Your task to perform on an android device: snooze an email in the gmail app Image 0: 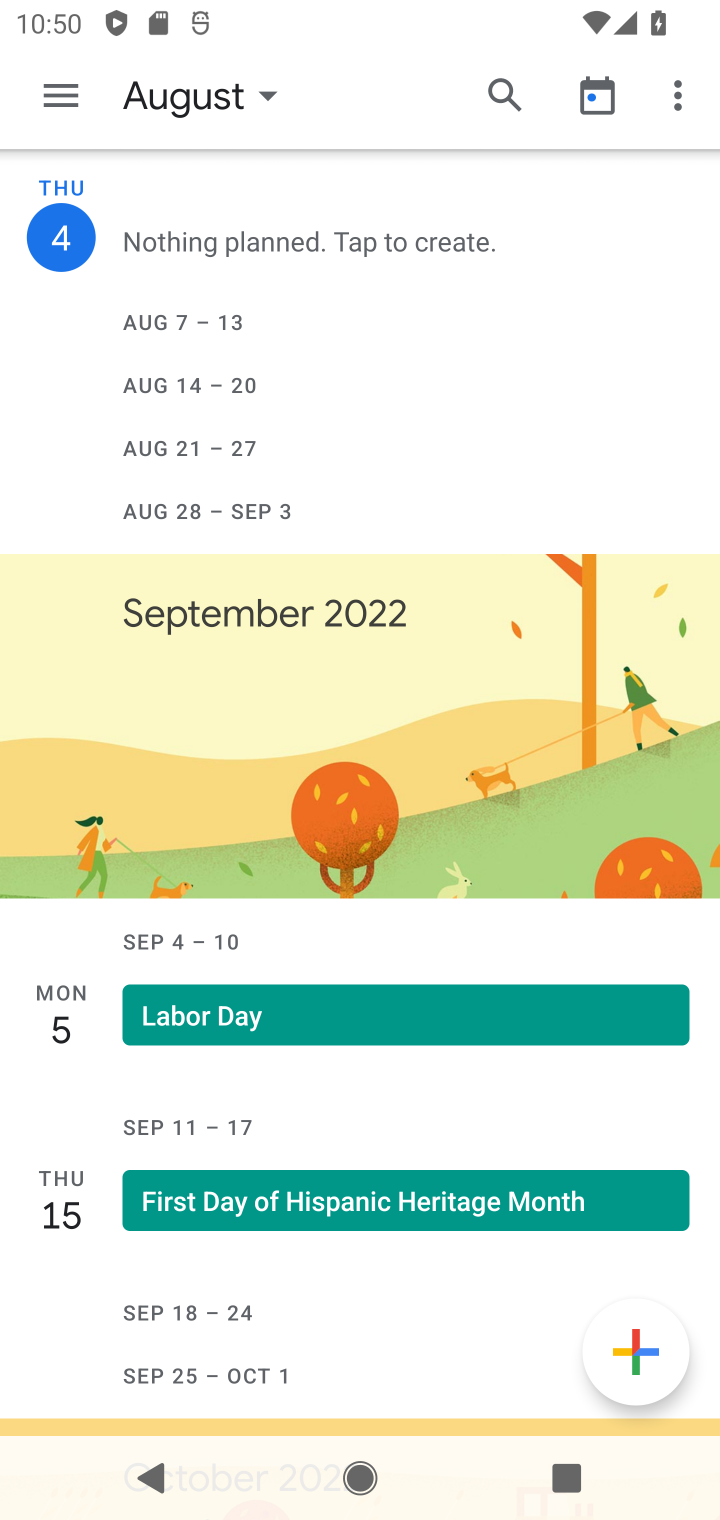
Step 0: press home button
Your task to perform on an android device: snooze an email in the gmail app Image 1: 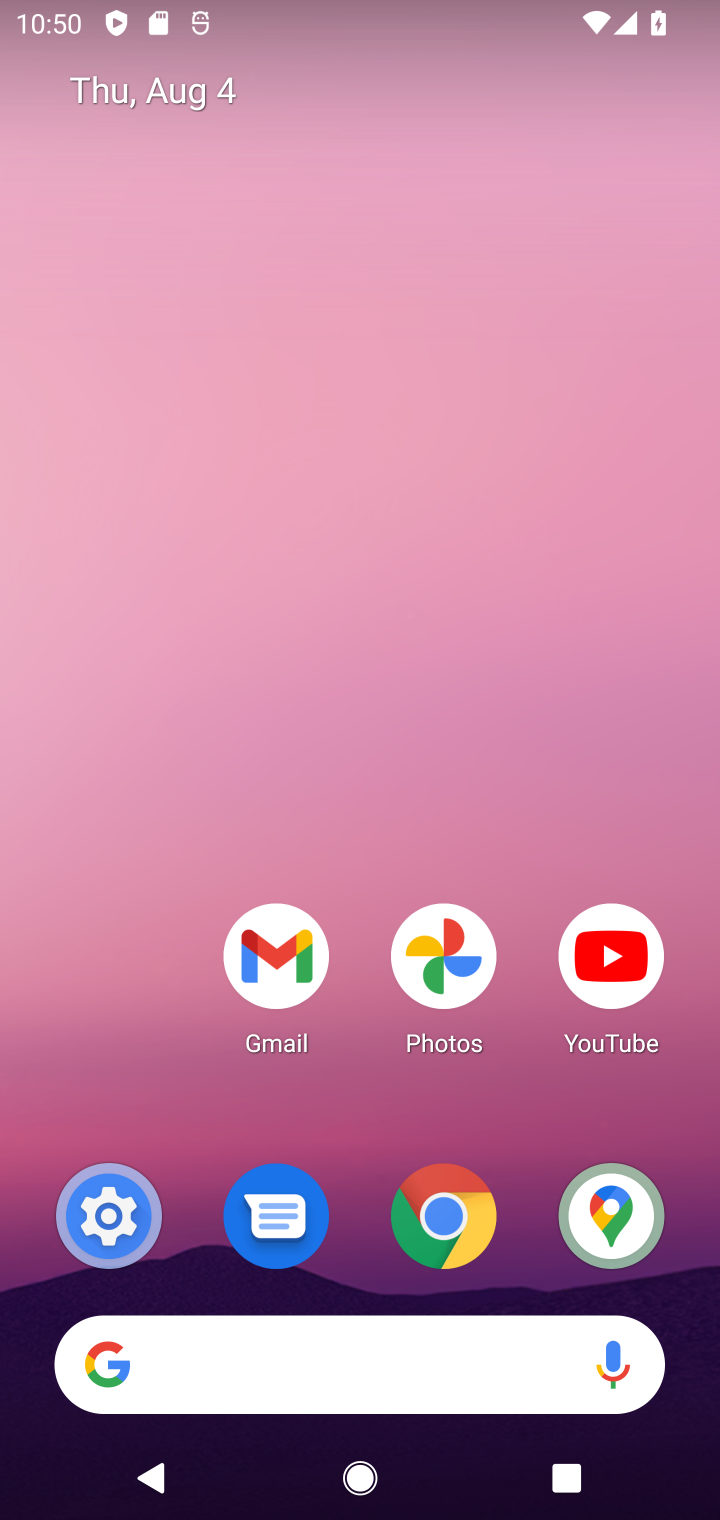
Step 1: drag from (363, 852) to (427, 9)
Your task to perform on an android device: snooze an email in the gmail app Image 2: 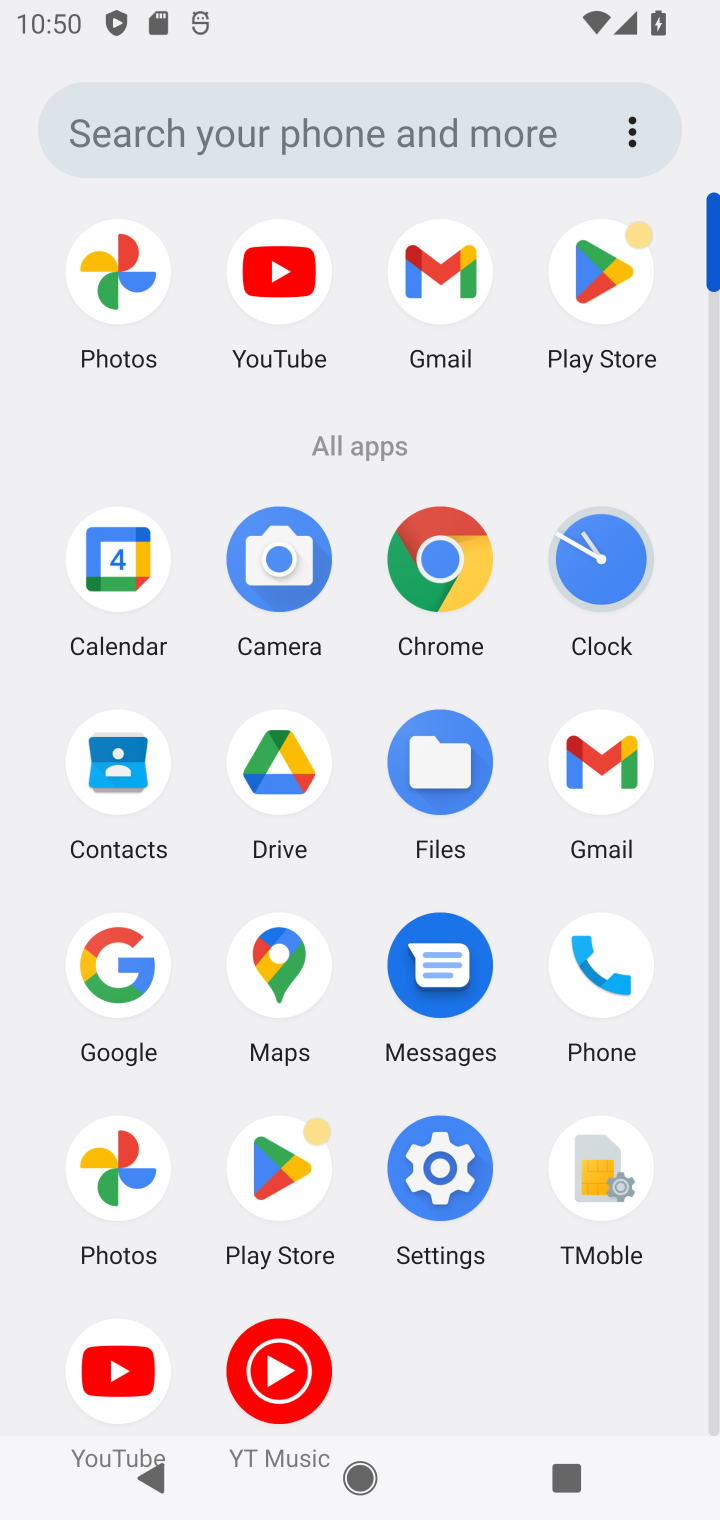
Step 2: click (596, 758)
Your task to perform on an android device: snooze an email in the gmail app Image 3: 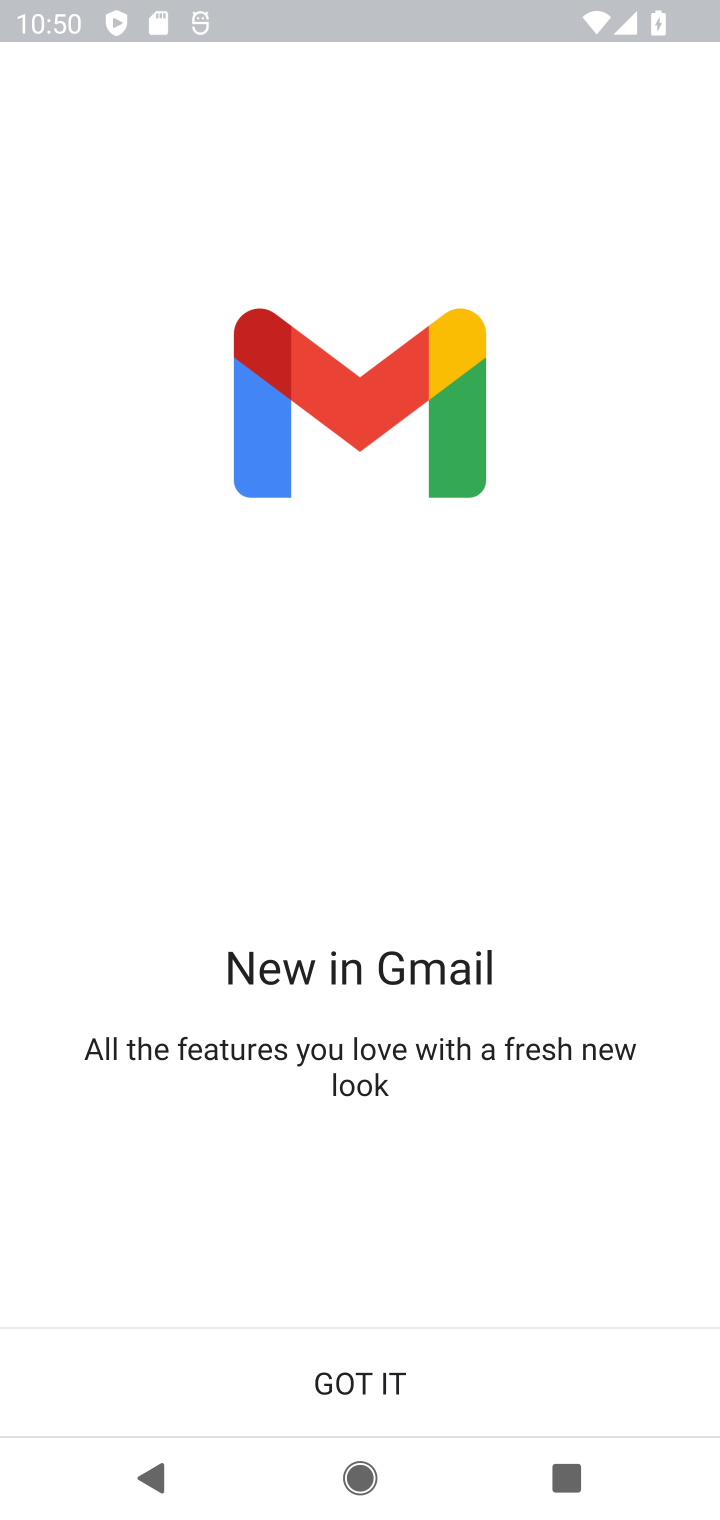
Step 3: click (390, 1365)
Your task to perform on an android device: snooze an email in the gmail app Image 4: 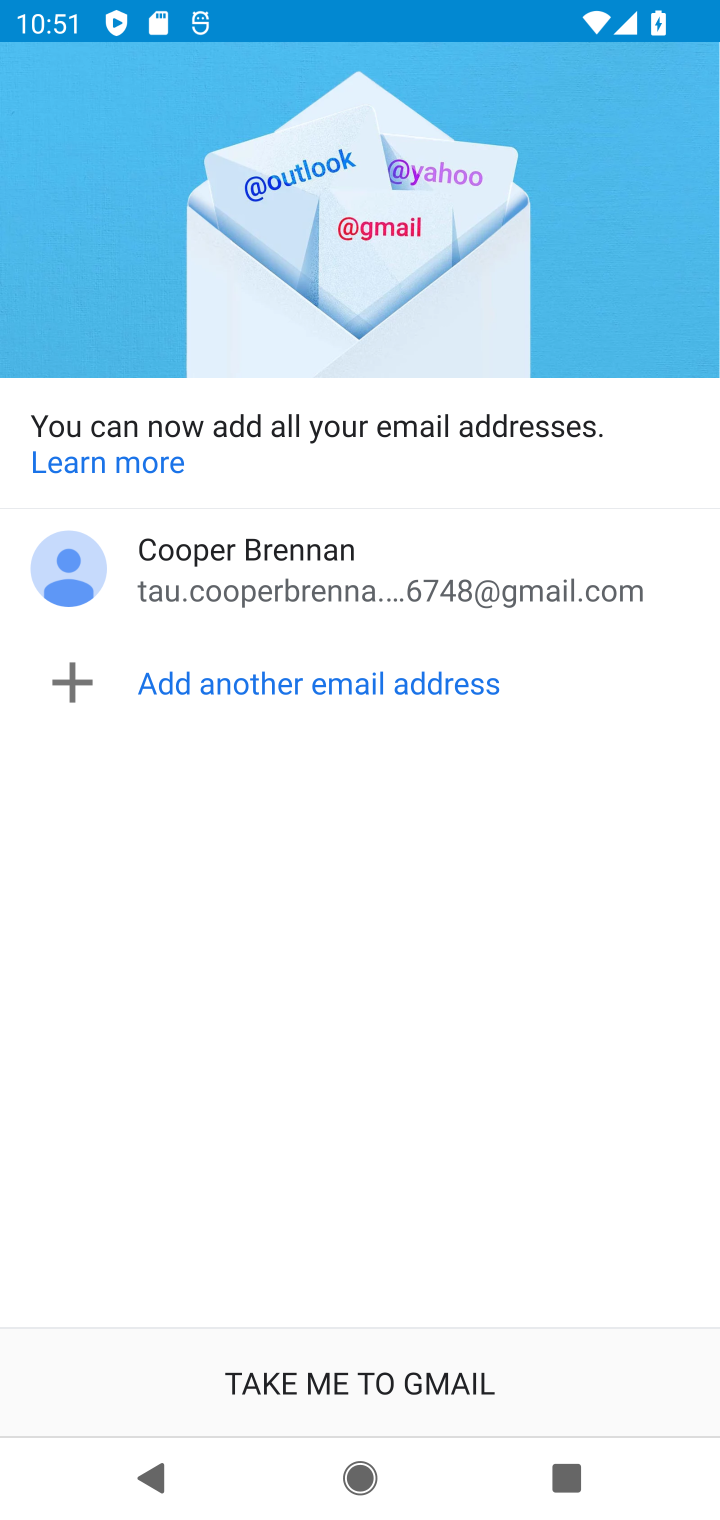
Step 4: click (441, 1377)
Your task to perform on an android device: snooze an email in the gmail app Image 5: 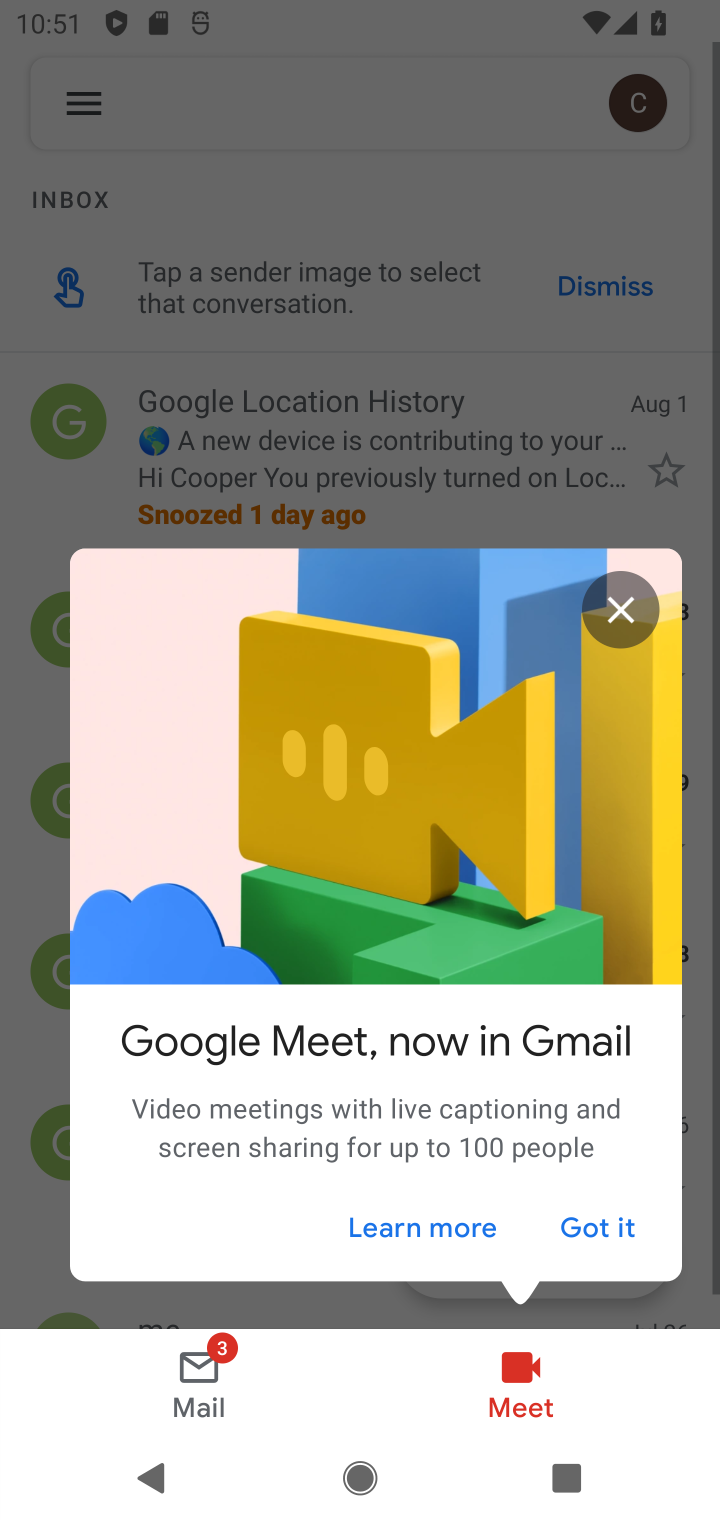
Step 5: click (631, 599)
Your task to perform on an android device: snooze an email in the gmail app Image 6: 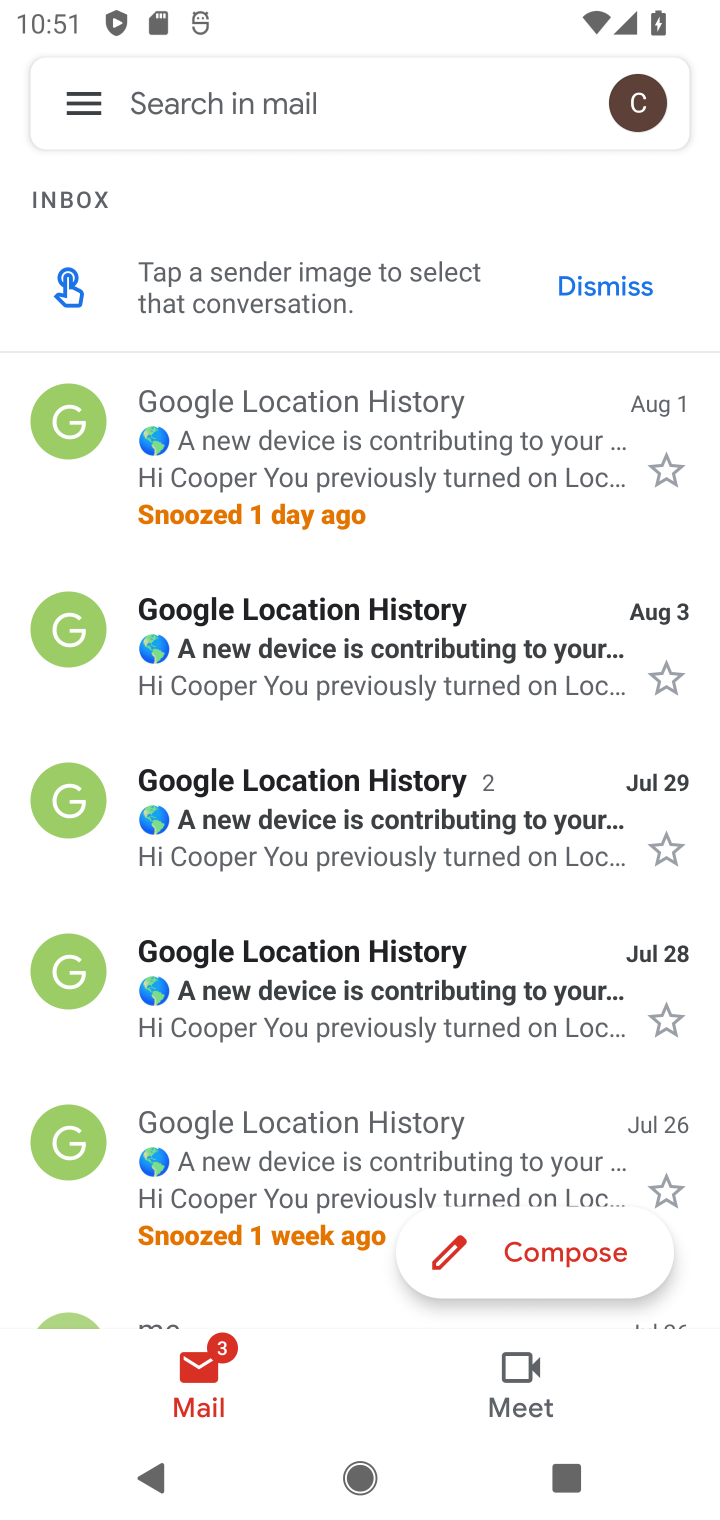
Step 6: click (487, 628)
Your task to perform on an android device: snooze an email in the gmail app Image 7: 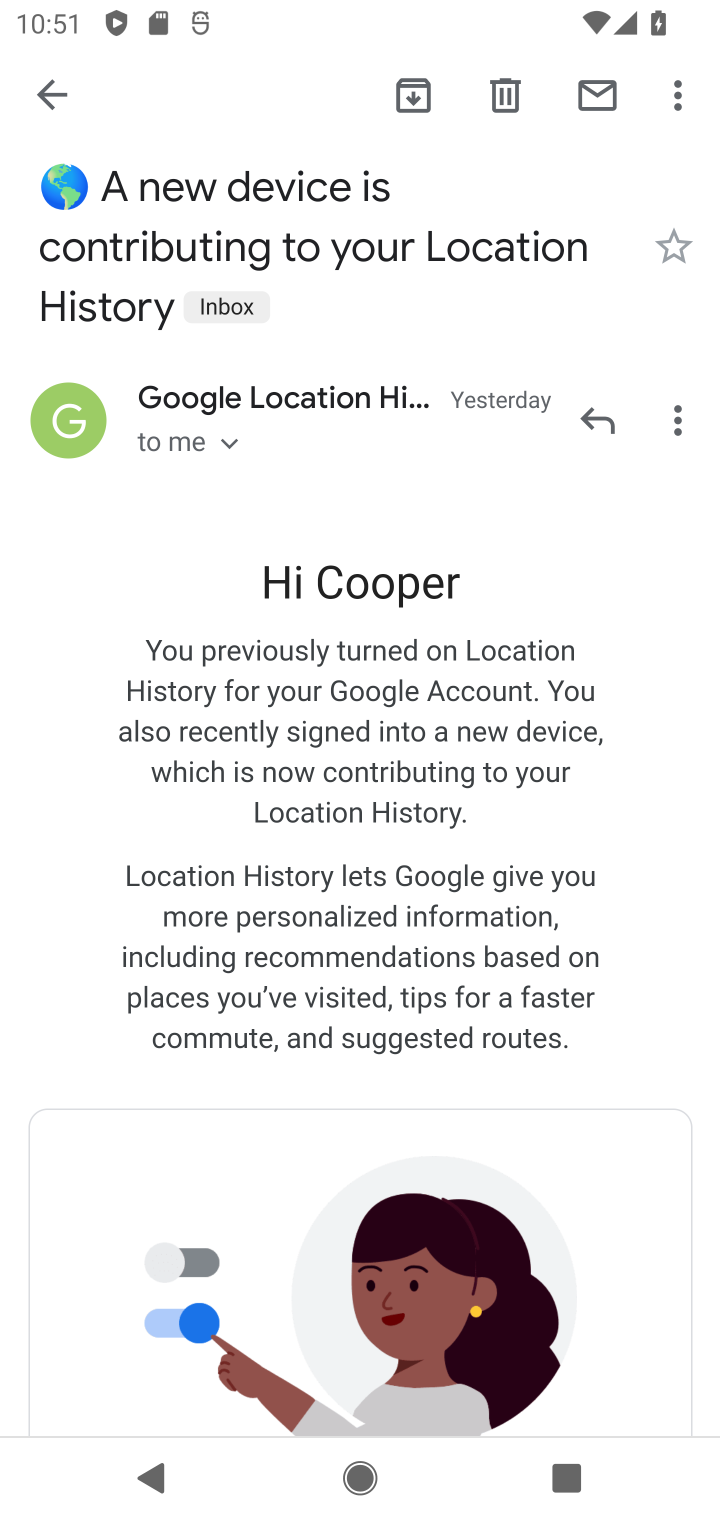
Step 7: click (680, 101)
Your task to perform on an android device: snooze an email in the gmail app Image 8: 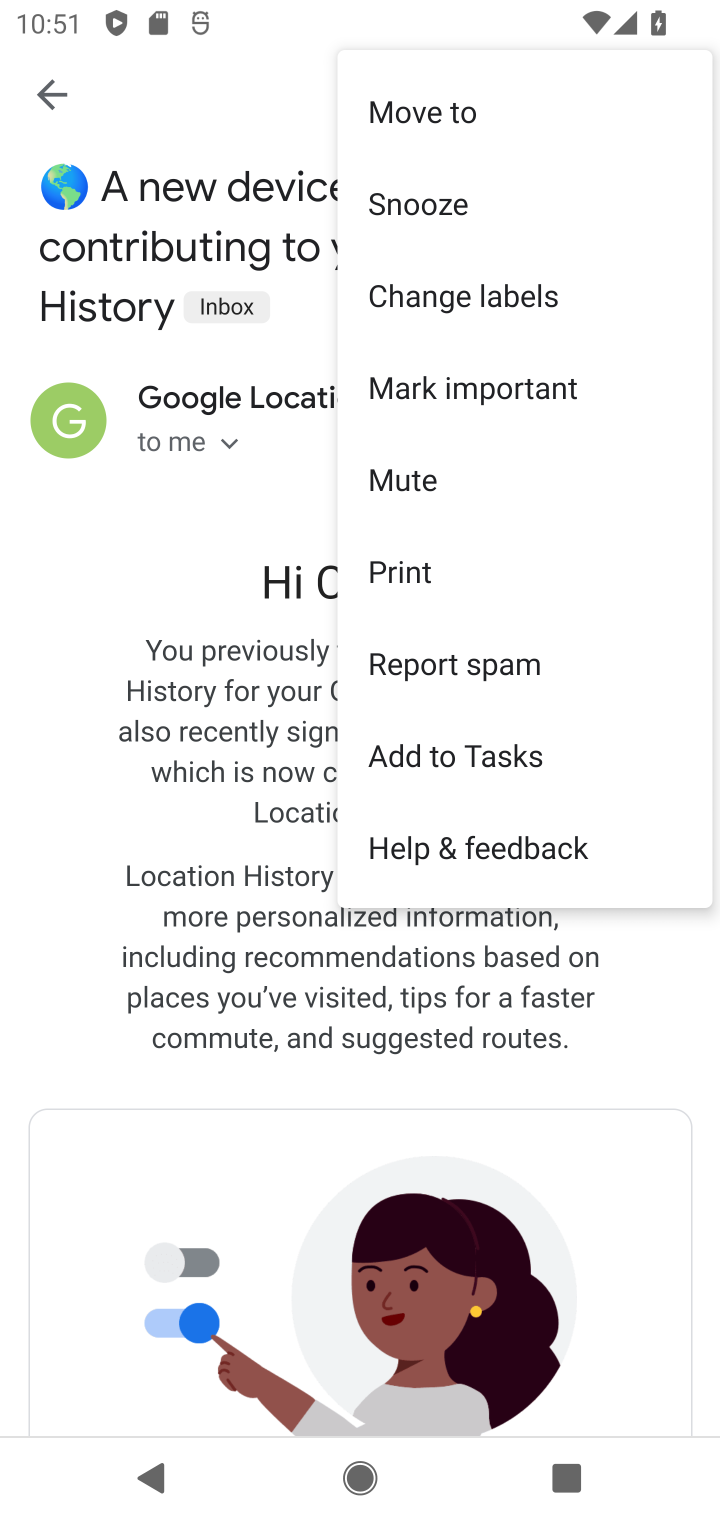
Step 8: click (491, 192)
Your task to perform on an android device: snooze an email in the gmail app Image 9: 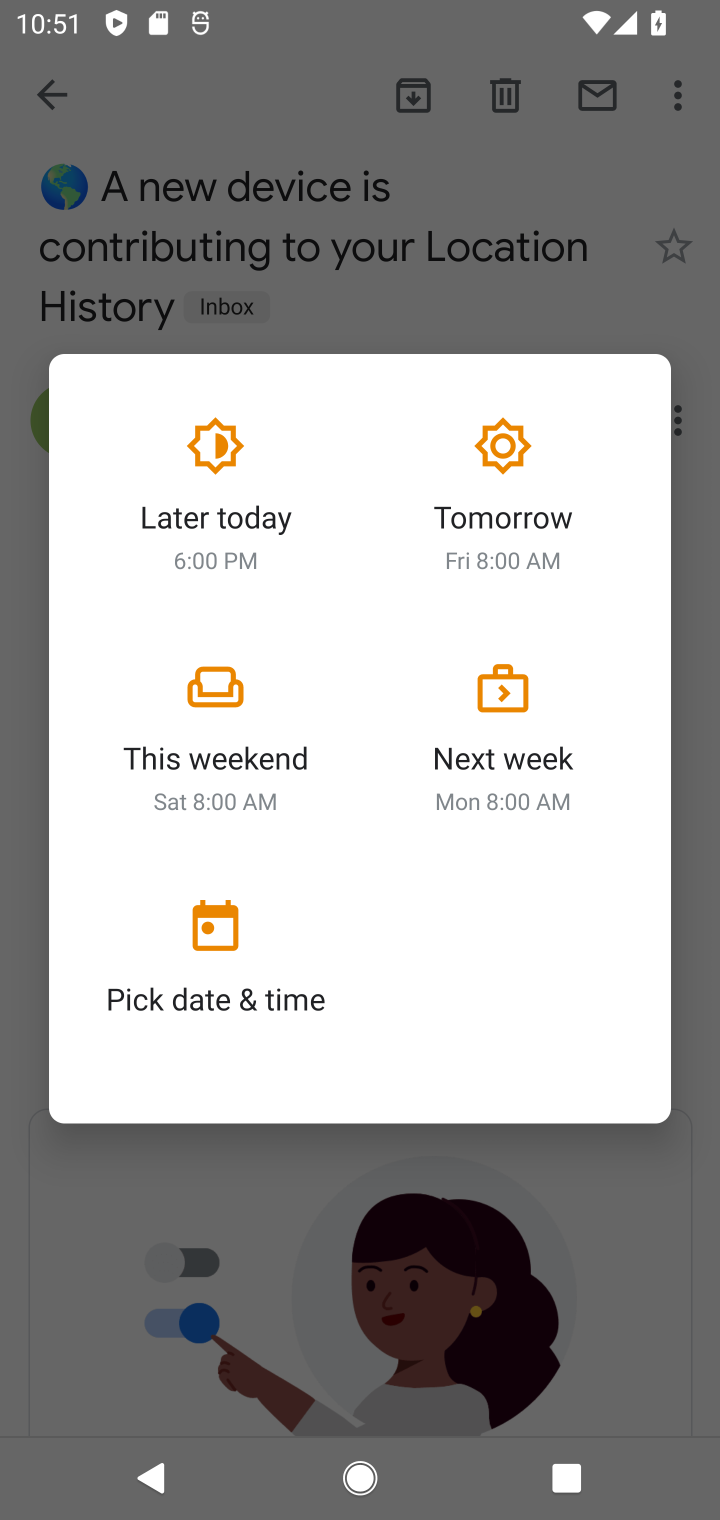
Step 9: click (468, 485)
Your task to perform on an android device: snooze an email in the gmail app Image 10: 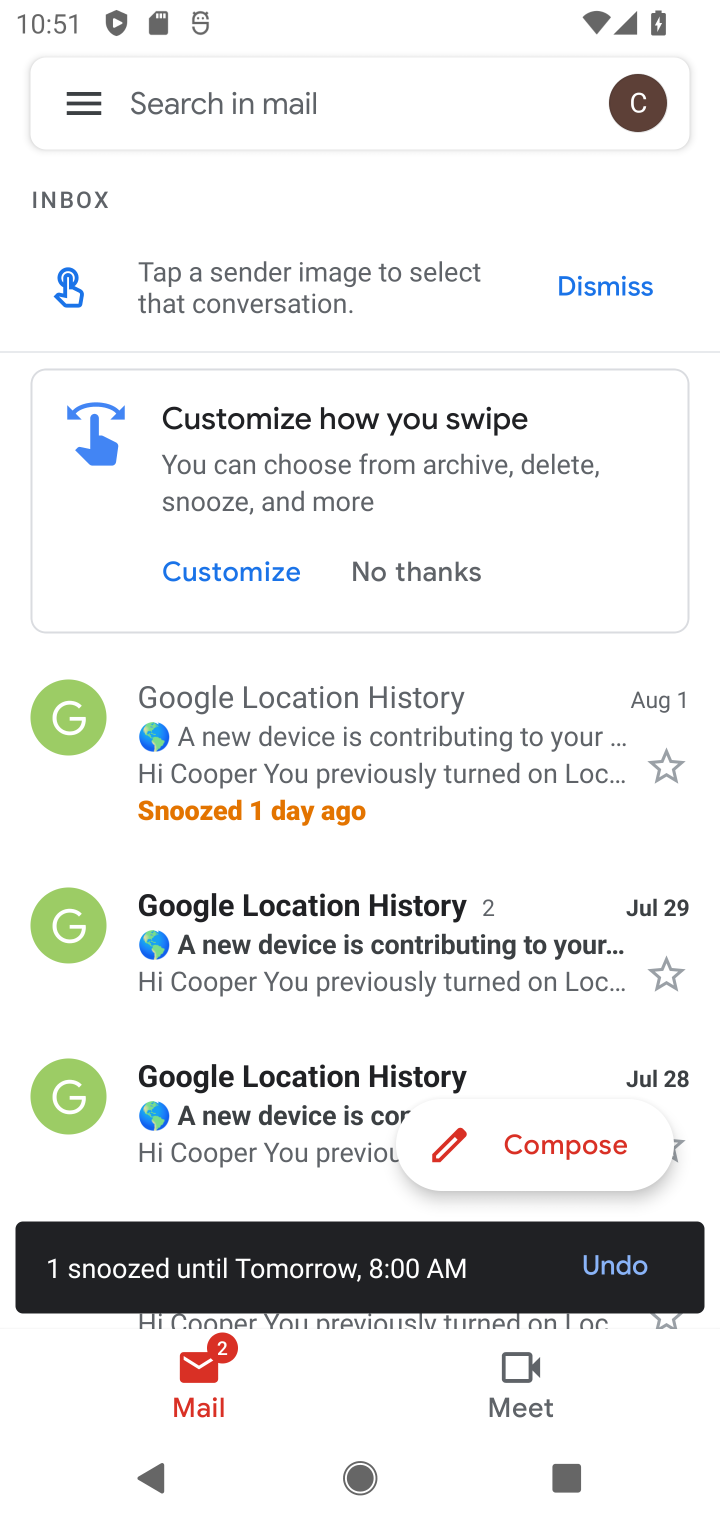
Step 10: task complete